Your task to perform on an android device: all mails in gmail Image 0: 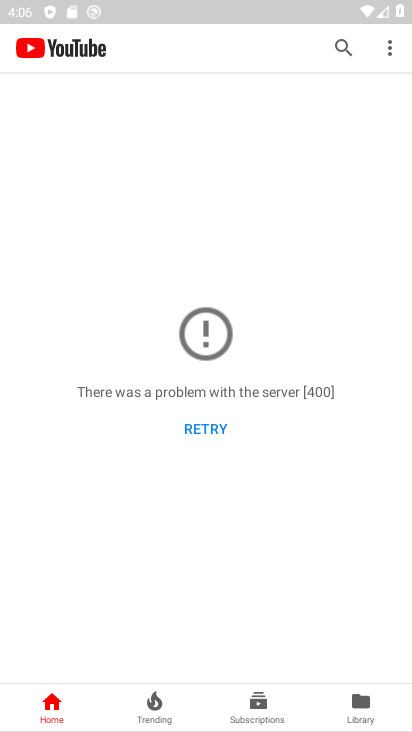
Step 0: press home button
Your task to perform on an android device: all mails in gmail Image 1: 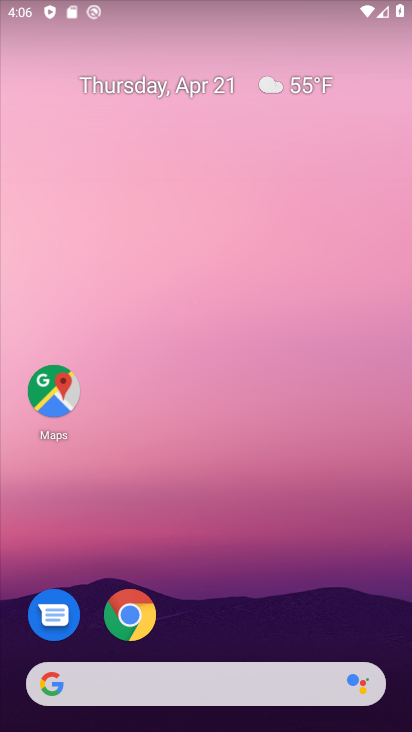
Step 1: drag from (222, 607) to (217, 145)
Your task to perform on an android device: all mails in gmail Image 2: 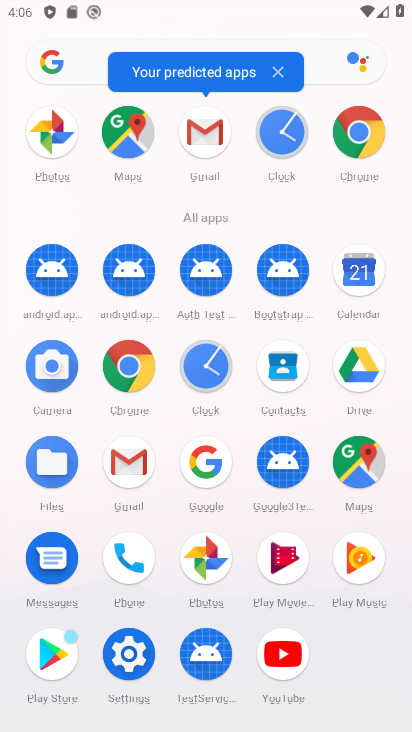
Step 2: click (217, 144)
Your task to perform on an android device: all mails in gmail Image 3: 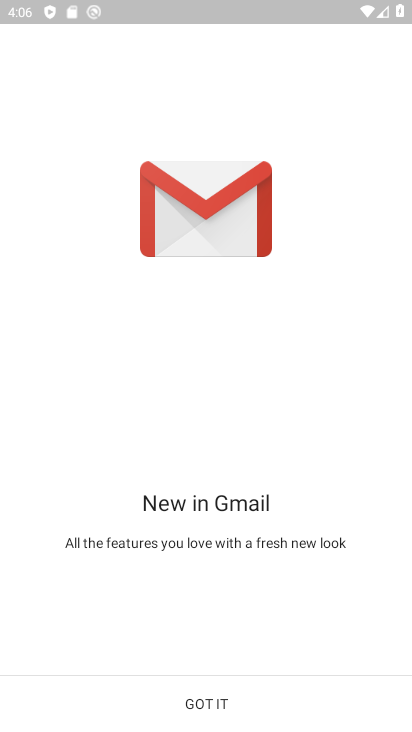
Step 3: click (233, 713)
Your task to perform on an android device: all mails in gmail Image 4: 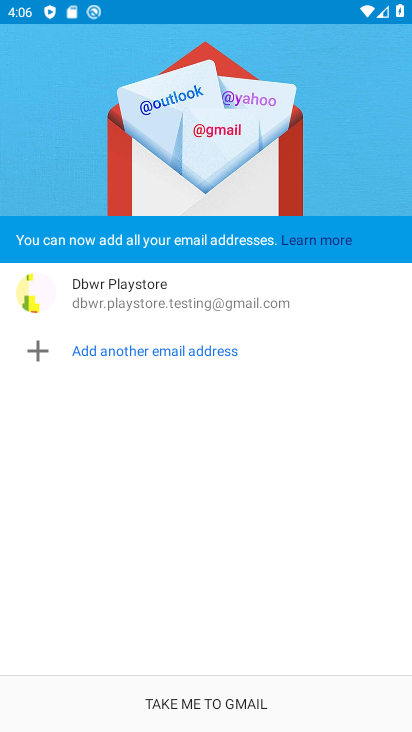
Step 4: click (233, 713)
Your task to perform on an android device: all mails in gmail Image 5: 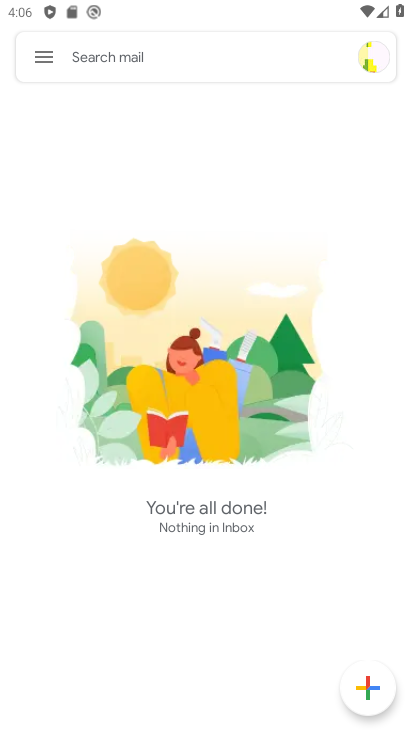
Step 5: click (37, 55)
Your task to perform on an android device: all mails in gmail Image 6: 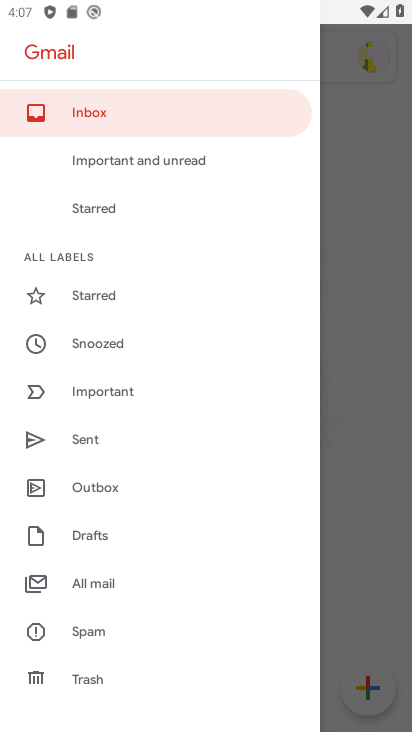
Step 6: click (111, 581)
Your task to perform on an android device: all mails in gmail Image 7: 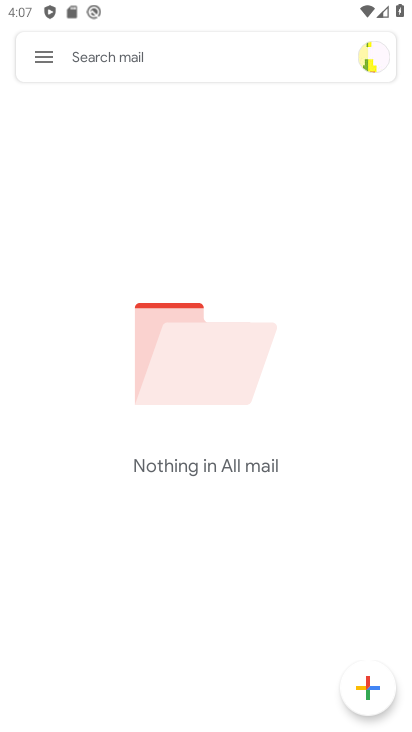
Step 7: task complete